Your task to perform on an android device: Go to wifi settings Image 0: 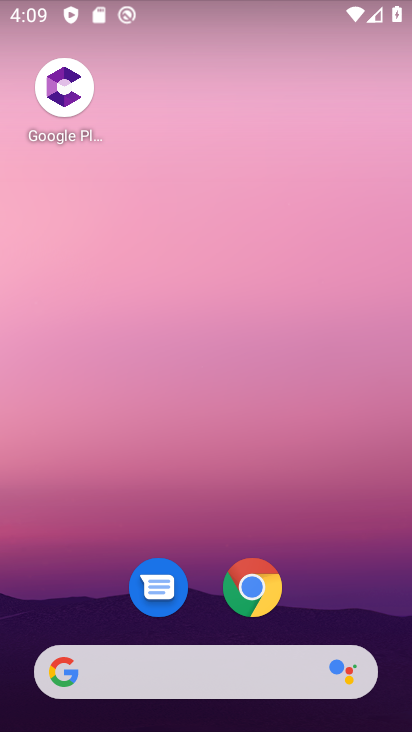
Step 0: drag from (212, 8) to (222, 476)
Your task to perform on an android device: Go to wifi settings Image 1: 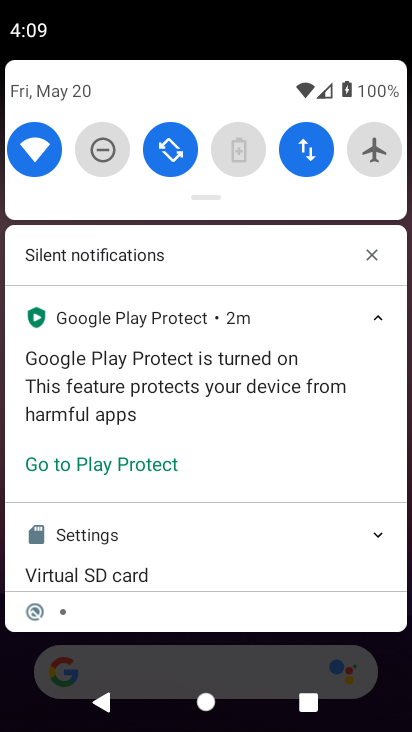
Step 1: click (12, 146)
Your task to perform on an android device: Go to wifi settings Image 2: 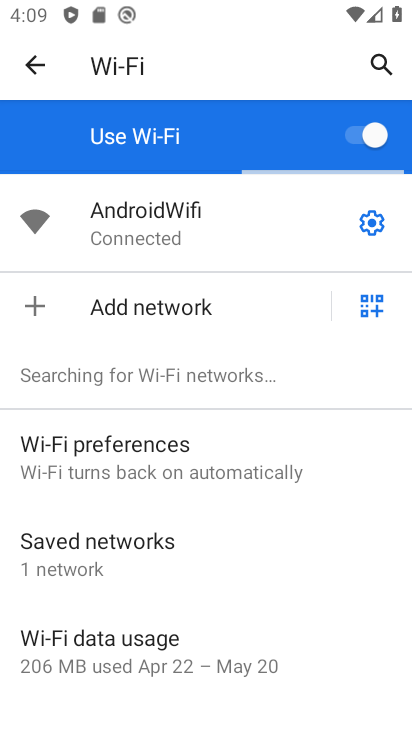
Step 2: task complete